Your task to perform on an android device: Open privacy settings Image 0: 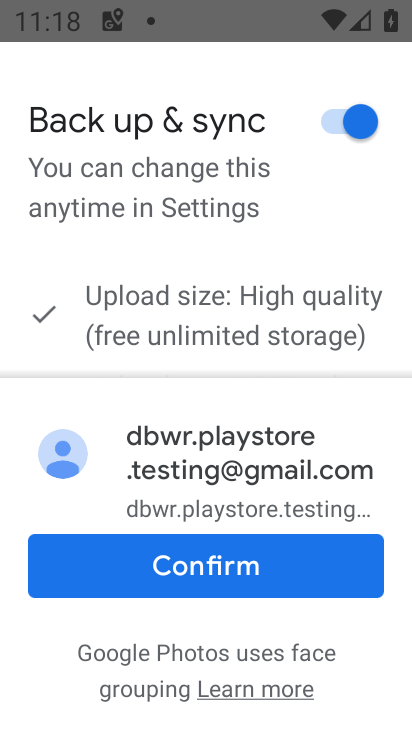
Step 0: press home button
Your task to perform on an android device: Open privacy settings Image 1: 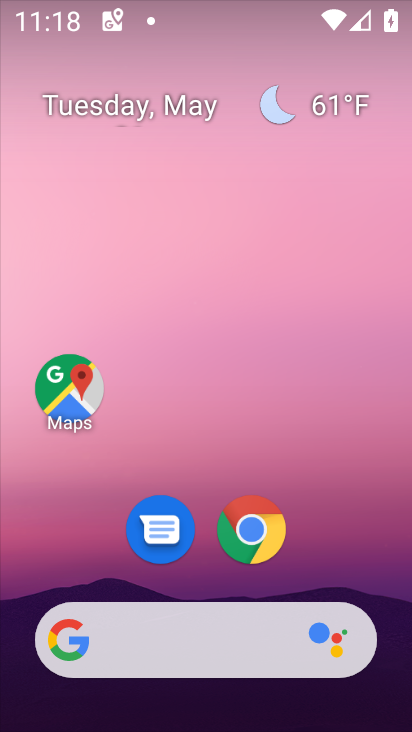
Step 1: drag from (359, 544) to (92, 121)
Your task to perform on an android device: Open privacy settings Image 2: 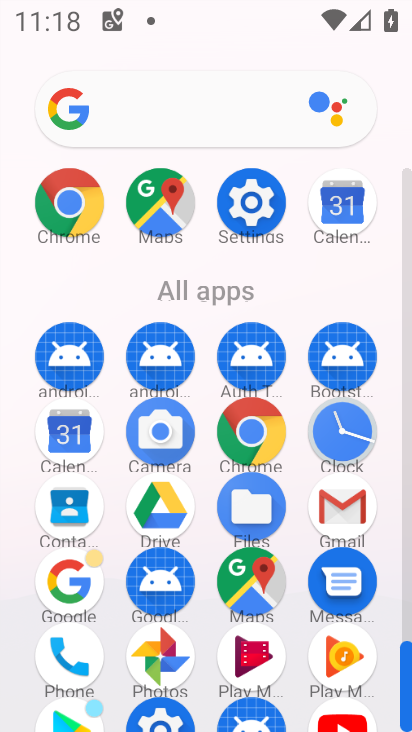
Step 2: click (253, 234)
Your task to perform on an android device: Open privacy settings Image 3: 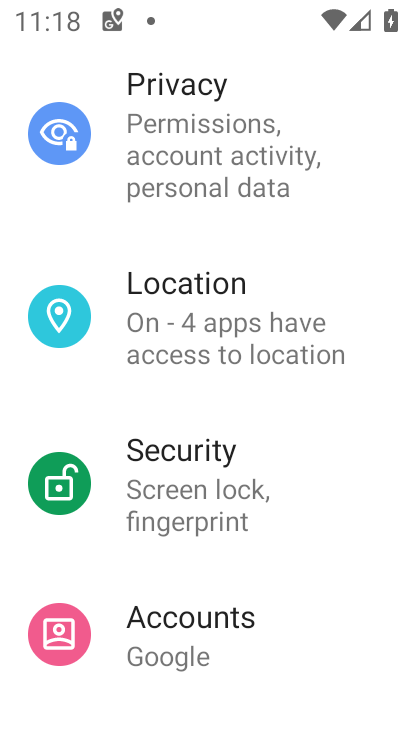
Step 3: click (241, 156)
Your task to perform on an android device: Open privacy settings Image 4: 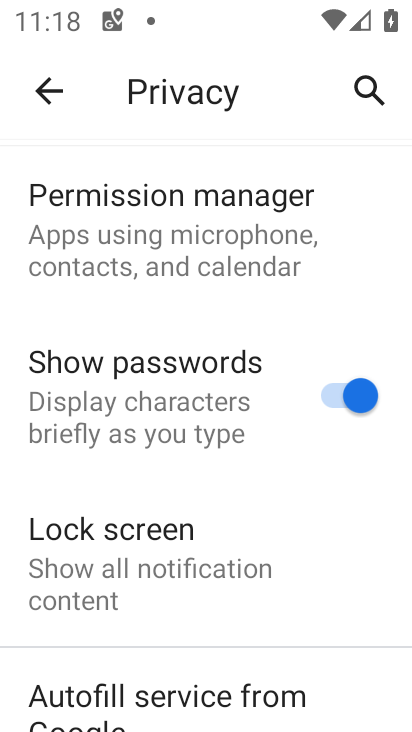
Step 4: task complete